Your task to perform on an android device: star an email in the gmail app Image 0: 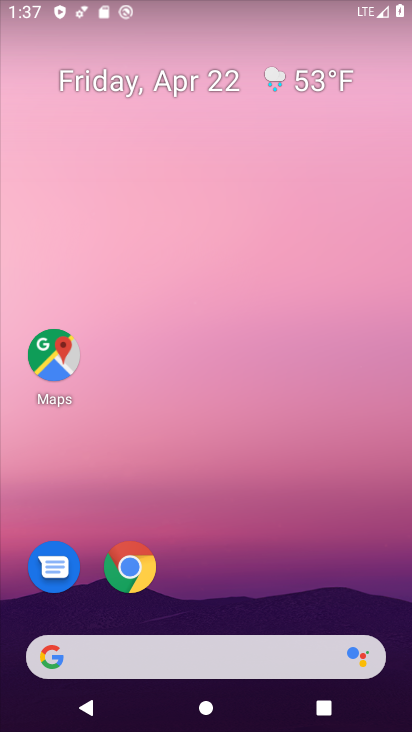
Step 0: drag from (358, 599) to (303, 181)
Your task to perform on an android device: star an email in the gmail app Image 1: 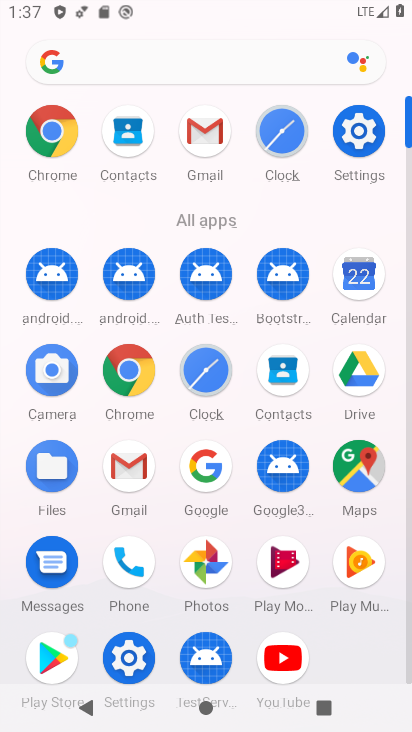
Step 1: click (122, 463)
Your task to perform on an android device: star an email in the gmail app Image 2: 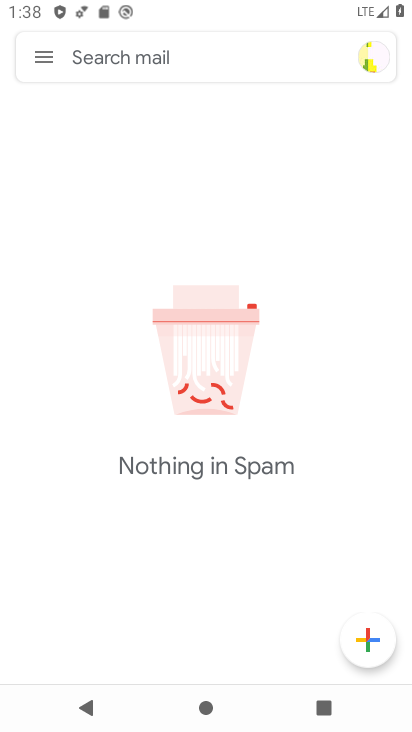
Step 2: click (39, 56)
Your task to perform on an android device: star an email in the gmail app Image 3: 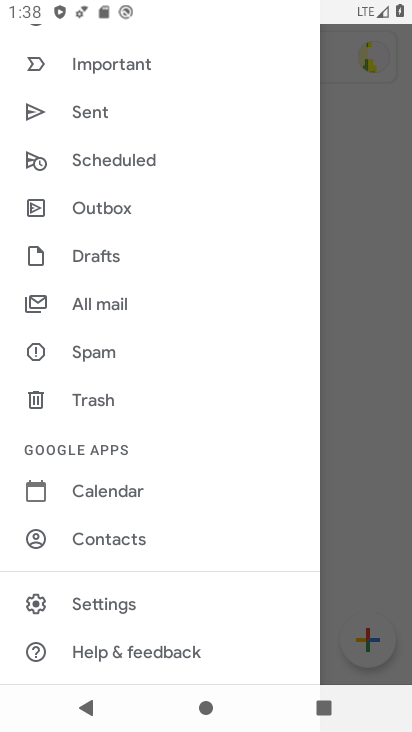
Step 3: click (112, 308)
Your task to perform on an android device: star an email in the gmail app Image 4: 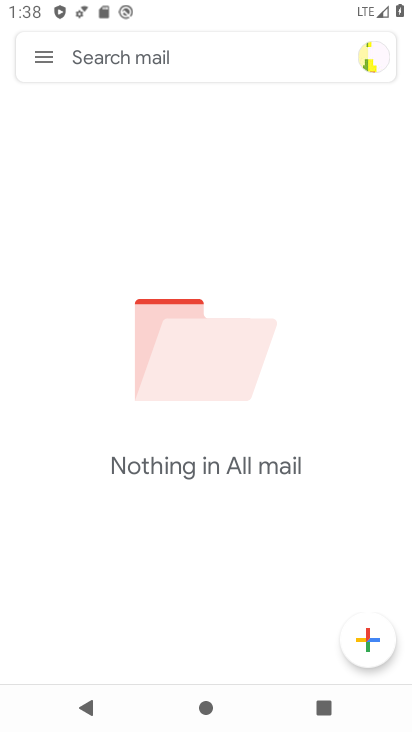
Step 4: task complete